Your task to perform on an android device: Is it going to rain today? Image 0: 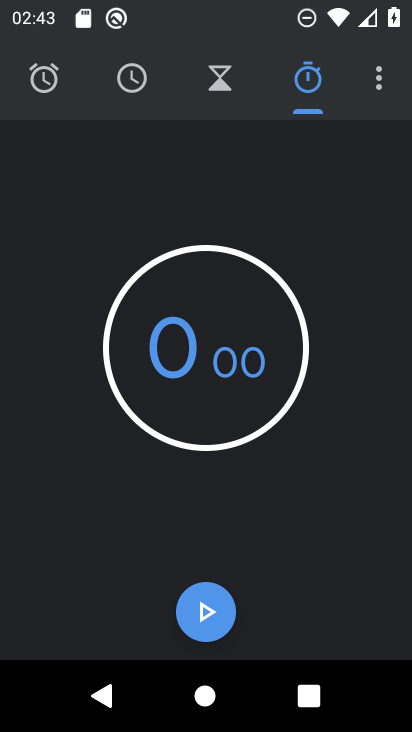
Step 0: press home button
Your task to perform on an android device: Is it going to rain today? Image 1: 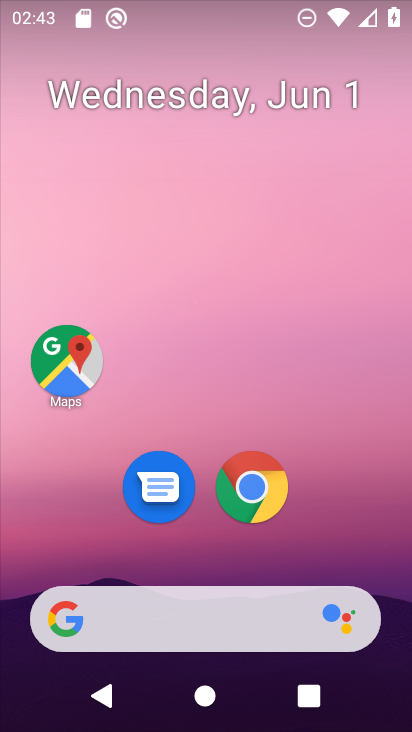
Step 1: click (236, 480)
Your task to perform on an android device: Is it going to rain today? Image 2: 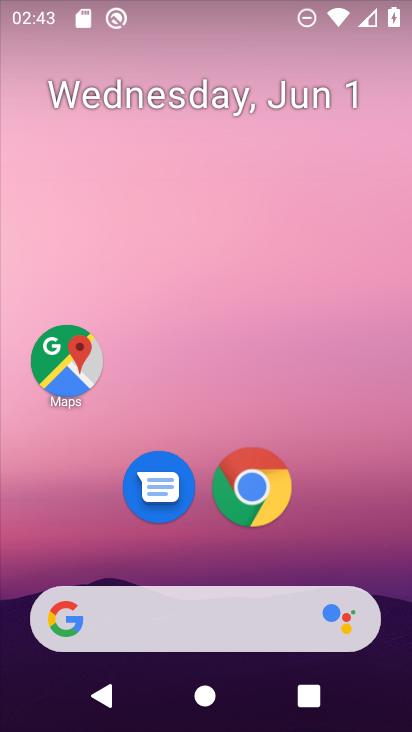
Step 2: click (256, 473)
Your task to perform on an android device: Is it going to rain today? Image 3: 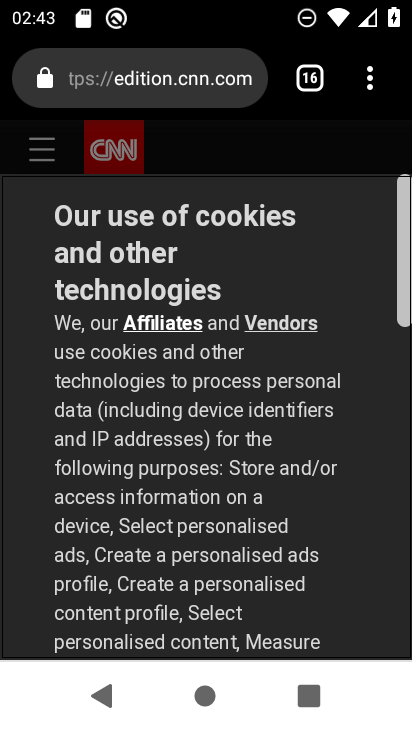
Step 3: click (368, 70)
Your task to perform on an android device: Is it going to rain today? Image 4: 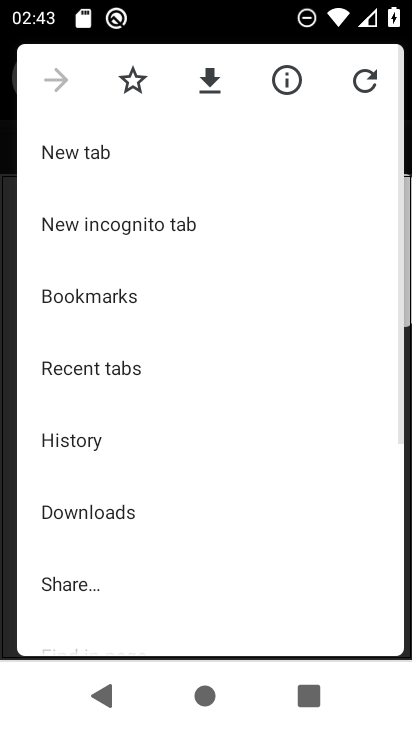
Step 4: click (119, 164)
Your task to perform on an android device: Is it going to rain today? Image 5: 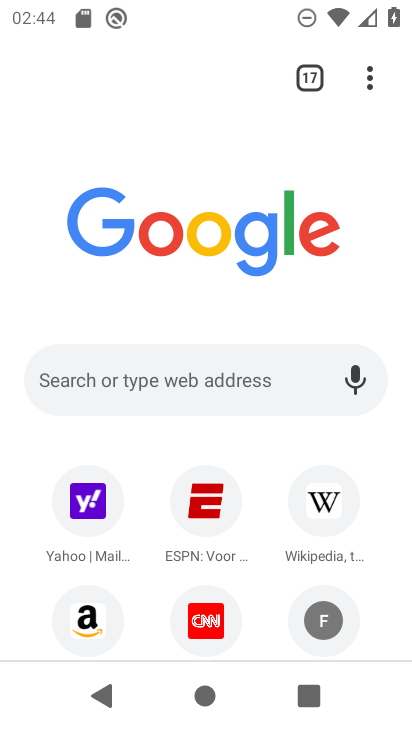
Step 5: click (174, 368)
Your task to perform on an android device: Is it going to rain today? Image 6: 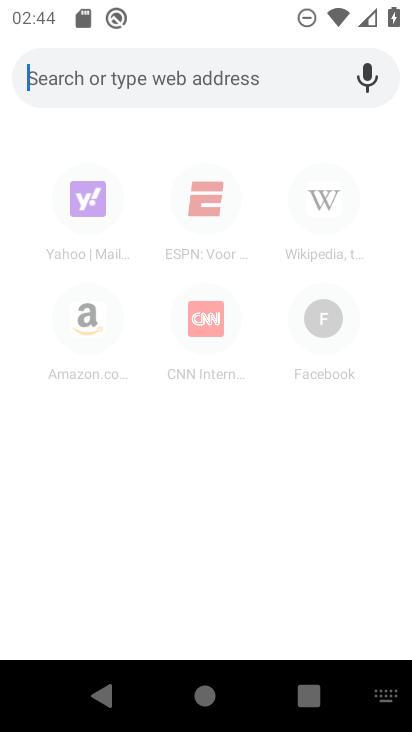
Step 6: type "Is it going to rain today?"
Your task to perform on an android device: Is it going to rain today? Image 7: 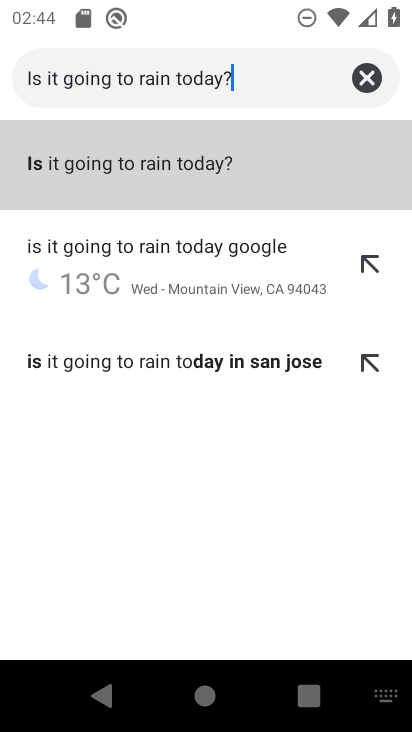
Step 7: click (289, 173)
Your task to perform on an android device: Is it going to rain today? Image 8: 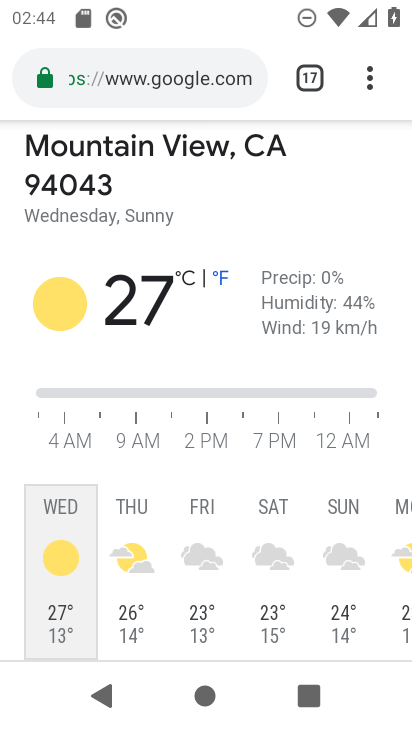
Step 8: task complete